Your task to perform on an android device: Go to internet settings Image 0: 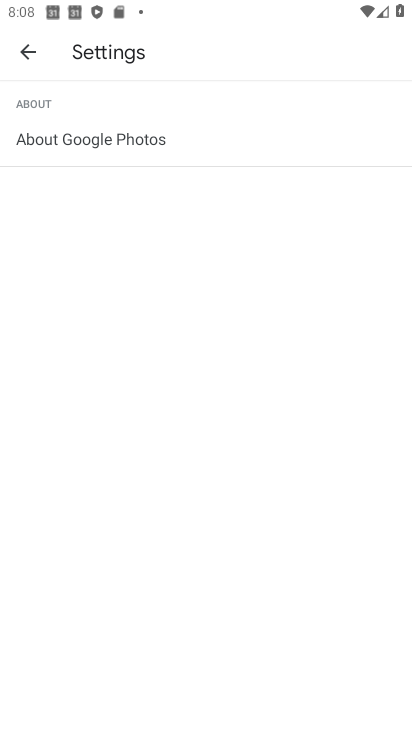
Step 0: press home button
Your task to perform on an android device: Go to internet settings Image 1: 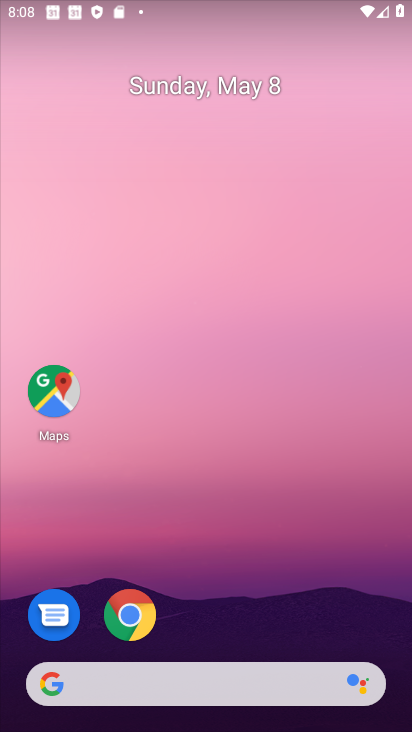
Step 1: drag from (253, 640) to (272, 202)
Your task to perform on an android device: Go to internet settings Image 2: 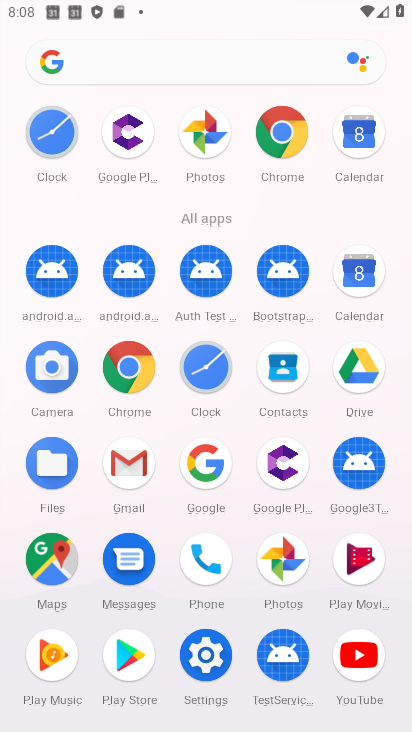
Step 2: click (218, 655)
Your task to perform on an android device: Go to internet settings Image 3: 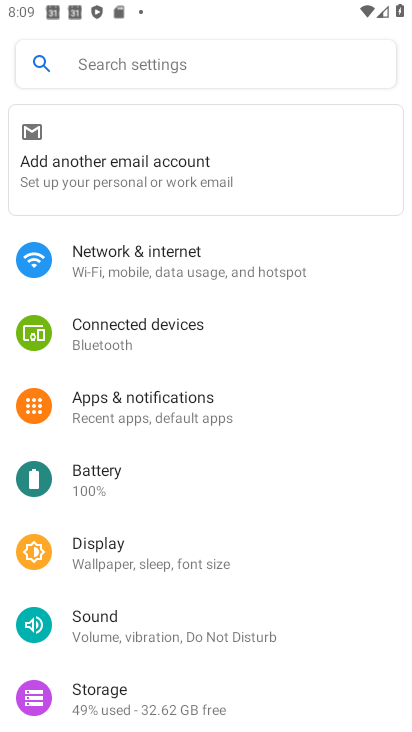
Step 3: click (233, 264)
Your task to perform on an android device: Go to internet settings Image 4: 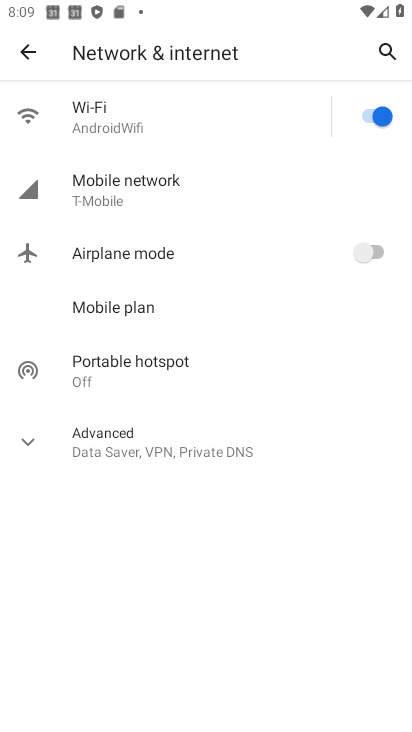
Step 4: task complete